Your task to perform on an android device: Open calendar and show me the first week of next month Image 0: 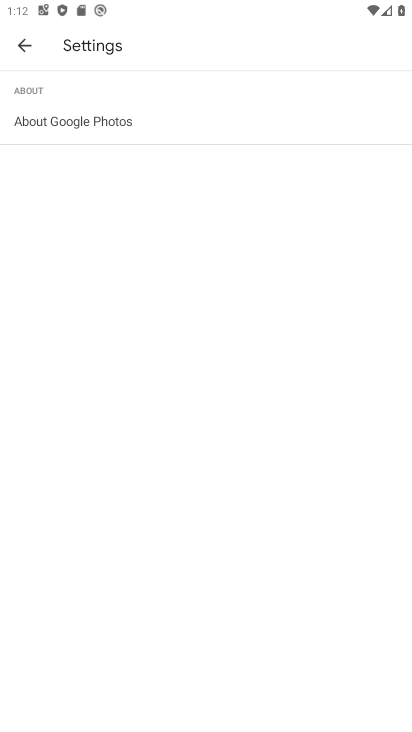
Step 0: press home button
Your task to perform on an android device: Open calendar and show me the first week of next month Image 1: 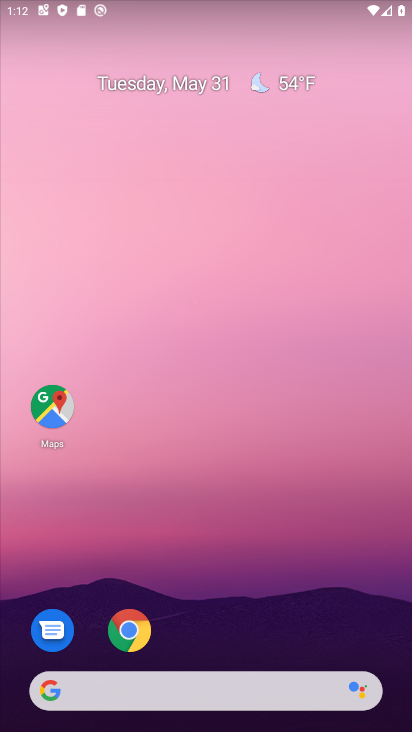
Step 1: drag from (254, 540) to (276, 96)
Your task to perform on an android device: Open calendar and show me the first week of next month Image 2: 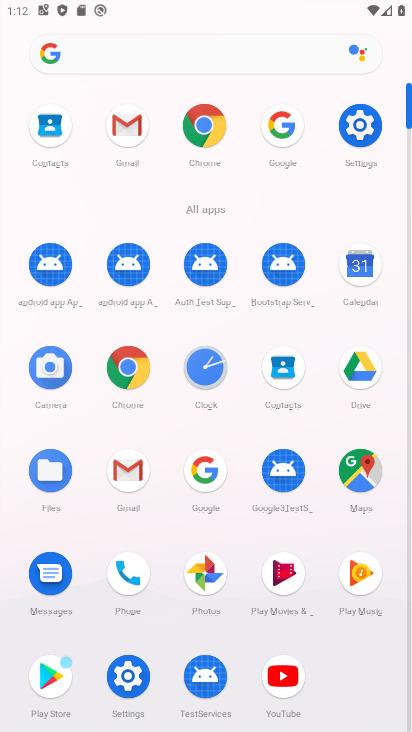
Step 2: click (352, 271)
Your task to perform on an android device: Open calendar and show me the first week of next month Image 3: 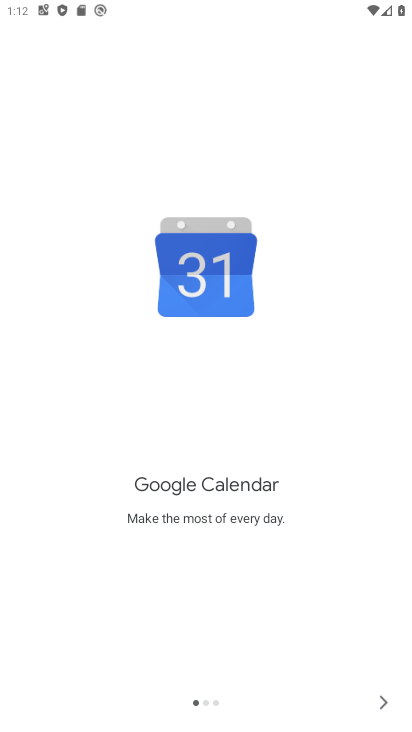
Step 3: click (391, 705)
Your task to perform on an android device: Open calendar and show me the first week of next month Image 4: 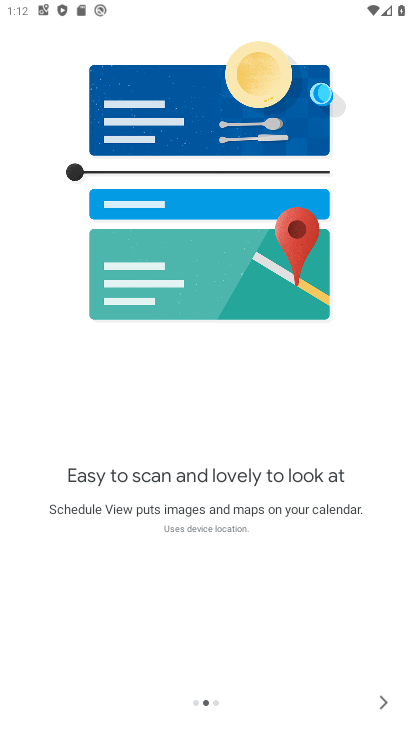
Step 4: click (391, 705)
Your task to perform on an android device: Open calendar and show me the first week of next month Image 5: 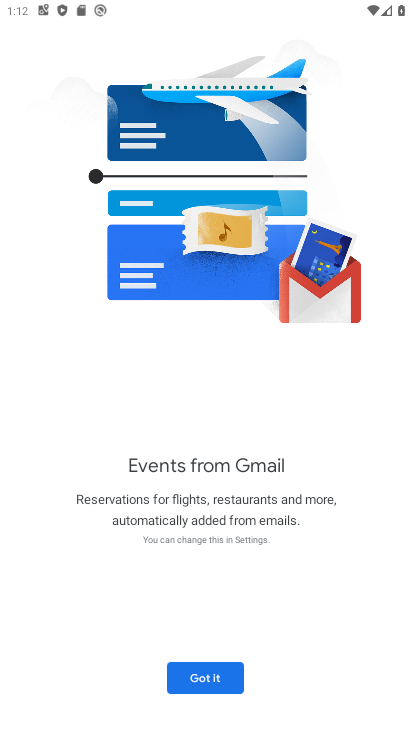
Step 5: click (219, 690)
Your task to perform on an android device: Open calendar and show me the first week of next month Image 6: 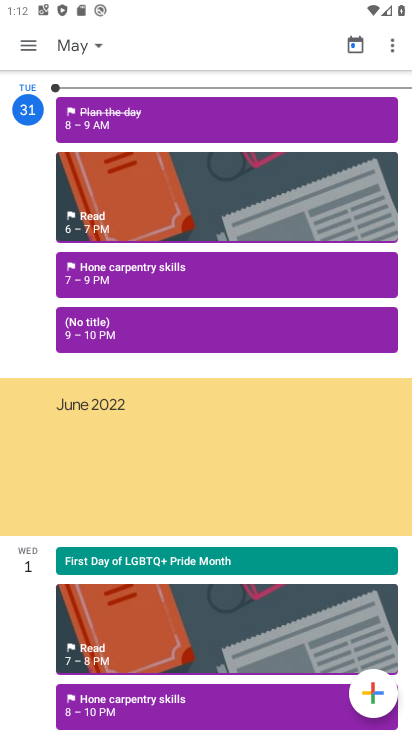
Step 6: click (82, 42)
Your task to perform on an android device: Open calendar and show me the first week of next month Image 7: 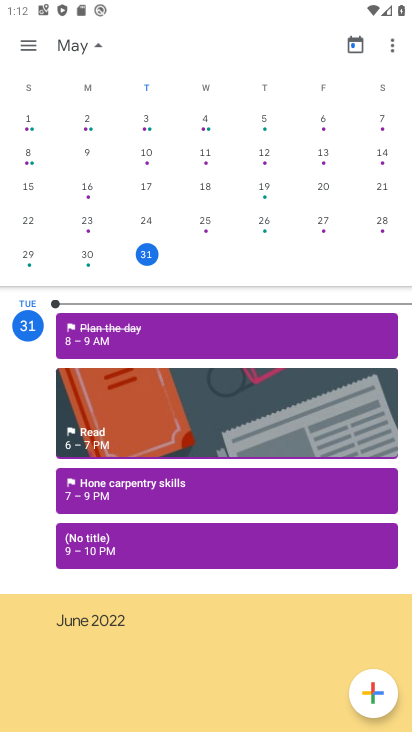
Step 7: drag from (384, 264) to (31, 172)
Your task to perform on an android device: Open calendar and show me the first week of next month Image 8: 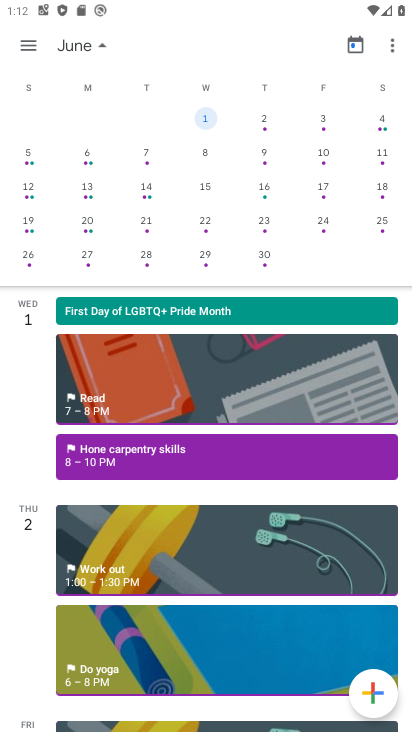
Step 8: click (263, 120)
Your task to perform on an android device: Open calendar and show me the first week of next month Image 9: 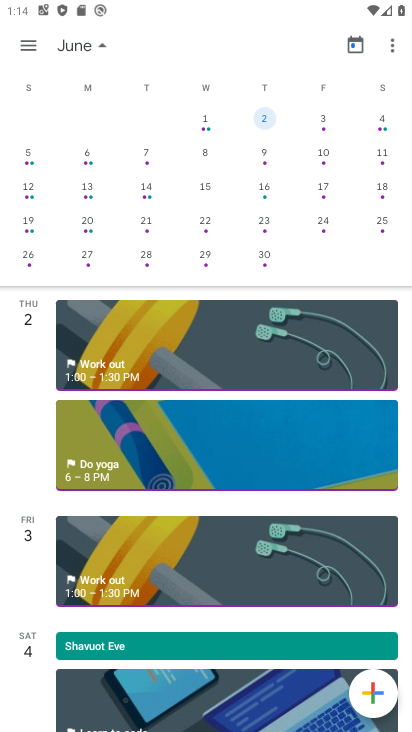
Step 9: task complete